Your task to perform on an android device: turn off wifi Image 0: 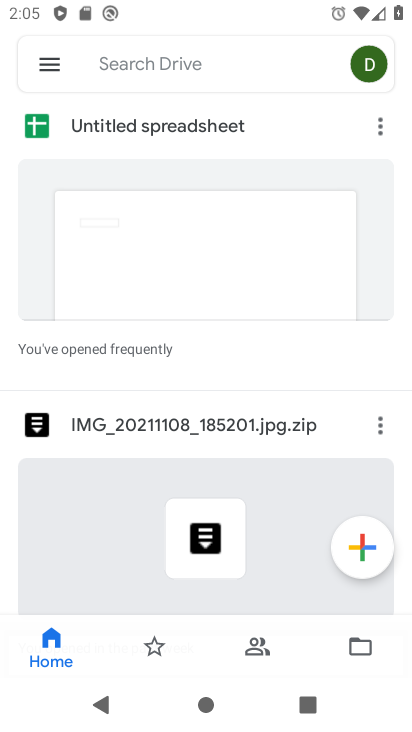
Step 0: press home button
Your task to perform on an android device: turn off wifi Image 1: 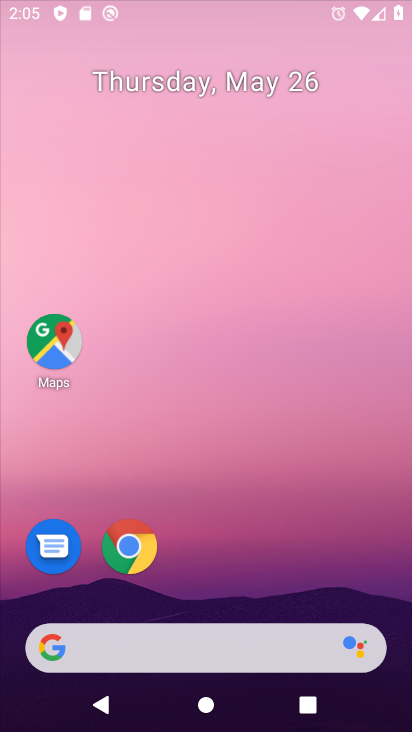
Step 1: drag from (215, 560) to (268, 99)
Your task to perform on an android device: turn off wifi Image 2: 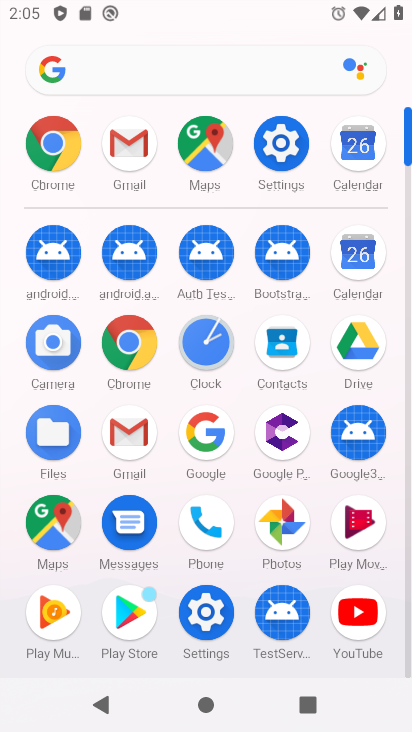
Step 2: click (288, 152)
Your task to perform on an android device: turn off wifi Image 3: 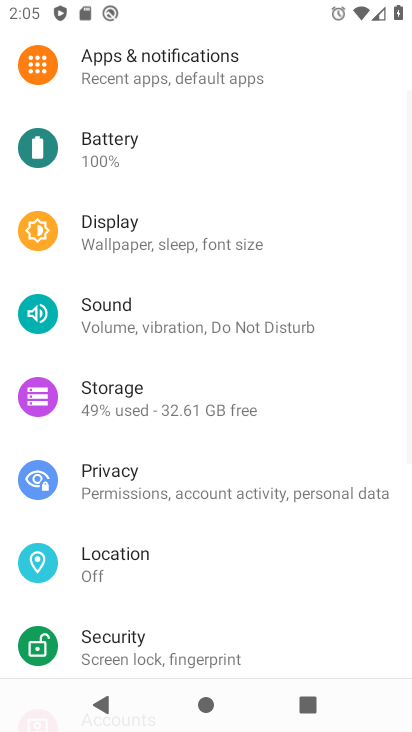
Step 3: drag from (132, 74) to (189, 449)
Your task to perform on an android device: turn off wifi Image 4: 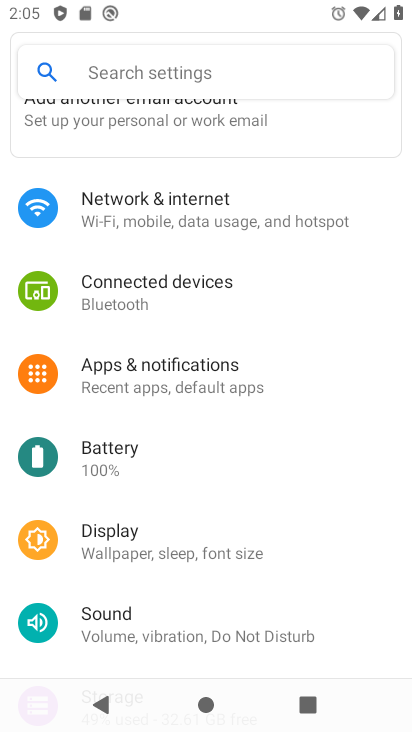
Step 4: click (170, 207)
Your task to perform on an android device: turn off wifi Image 5: 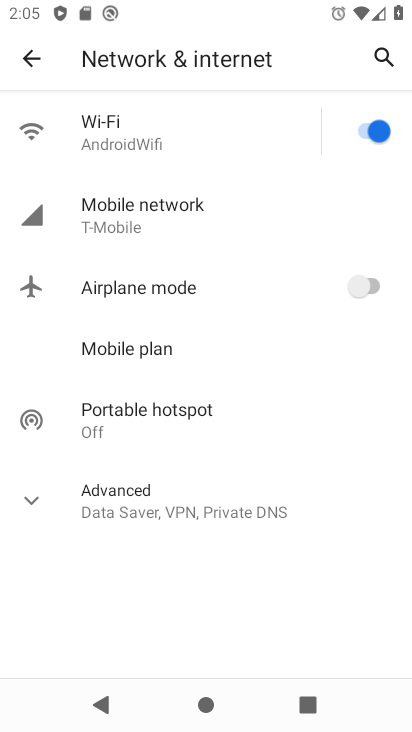
Step 5: click (378, 126)
Your task to perform on an android device: turn off wifi Image 6: 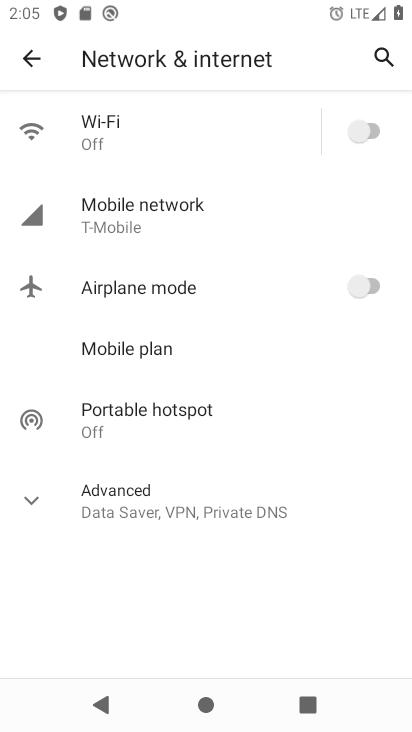
Step 6: task complete